Your task to perform on an android device: delete browsing data in the chrome app Image 0: 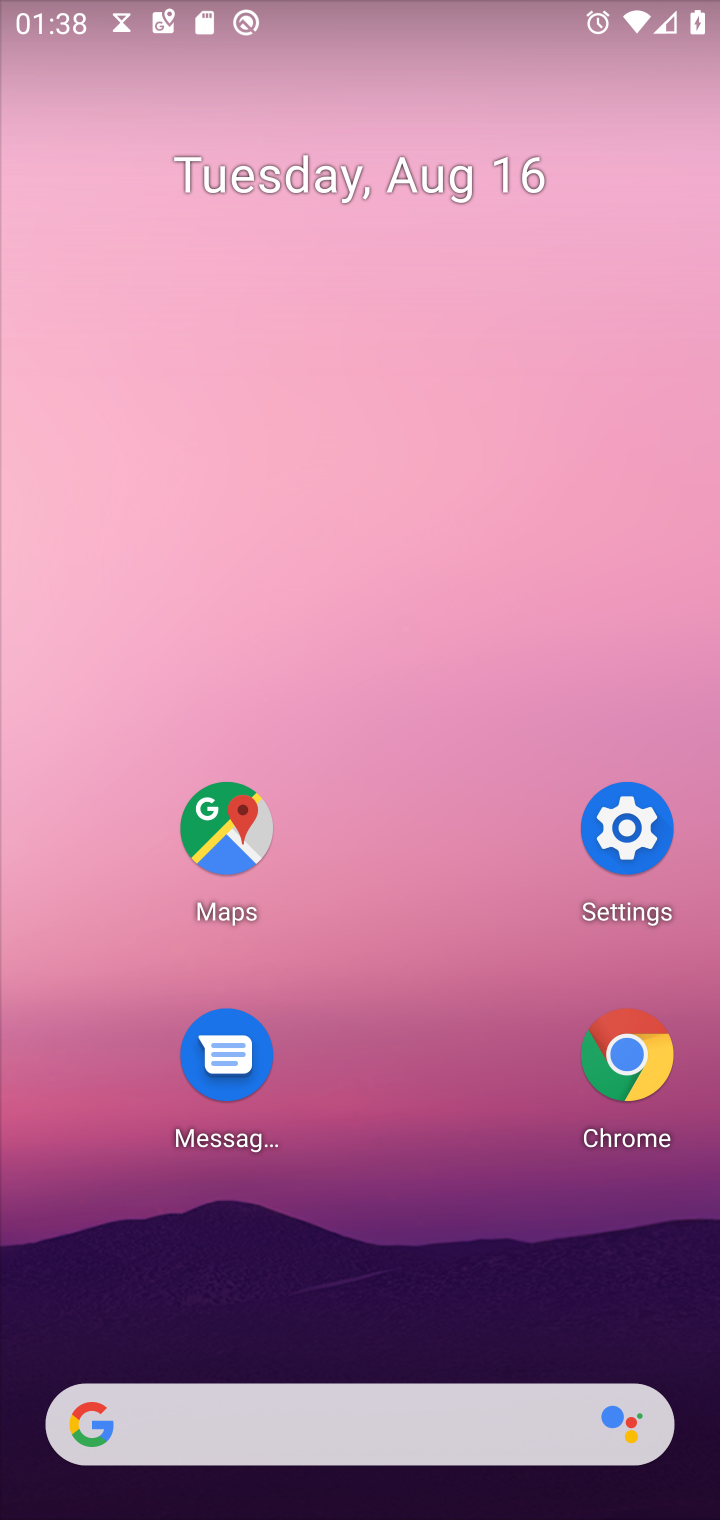
Step 0: press home button
Your task to perform on an android device: delete browsing data in the chrome app Image 1: 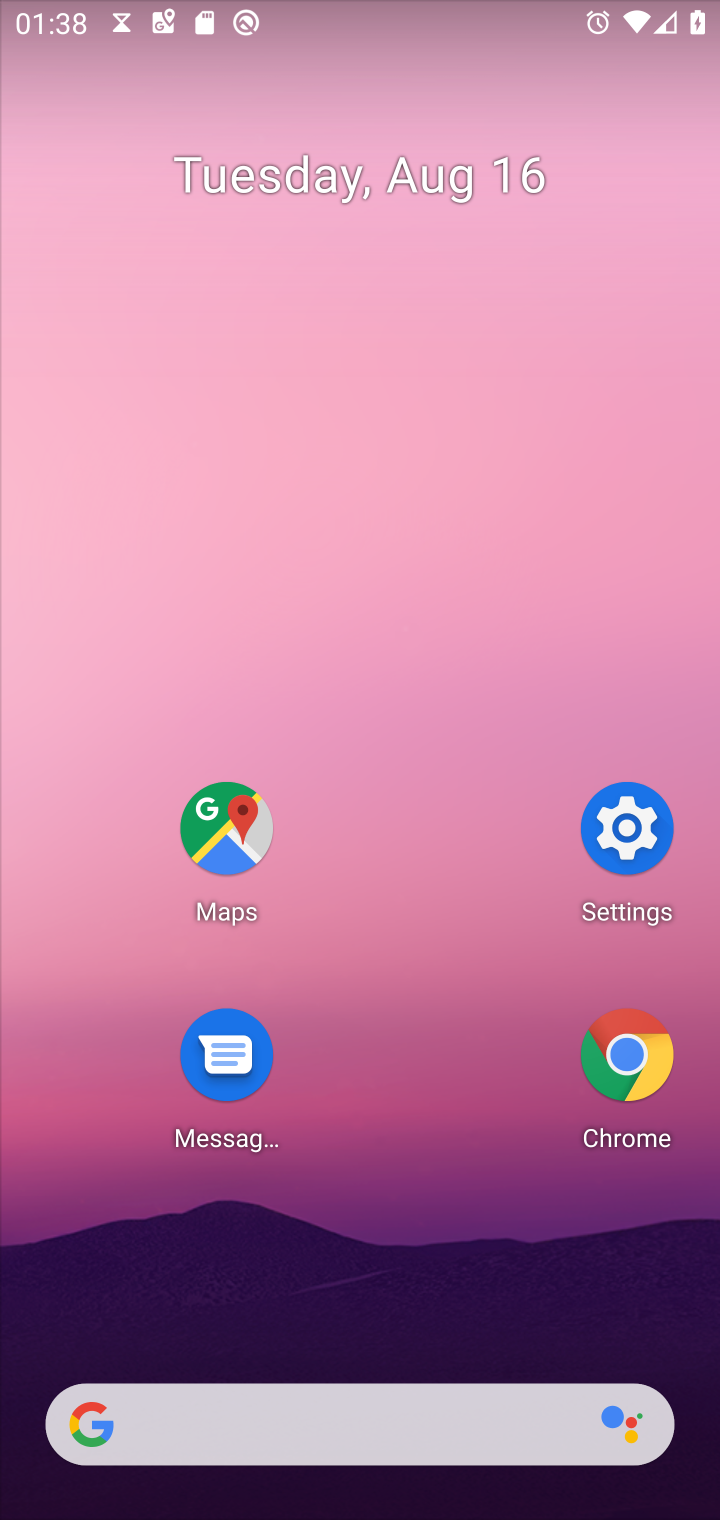
Step 1: click (622, 1041)
Your task to perform on an android device: delete browsing data in the chrome app Image 2: 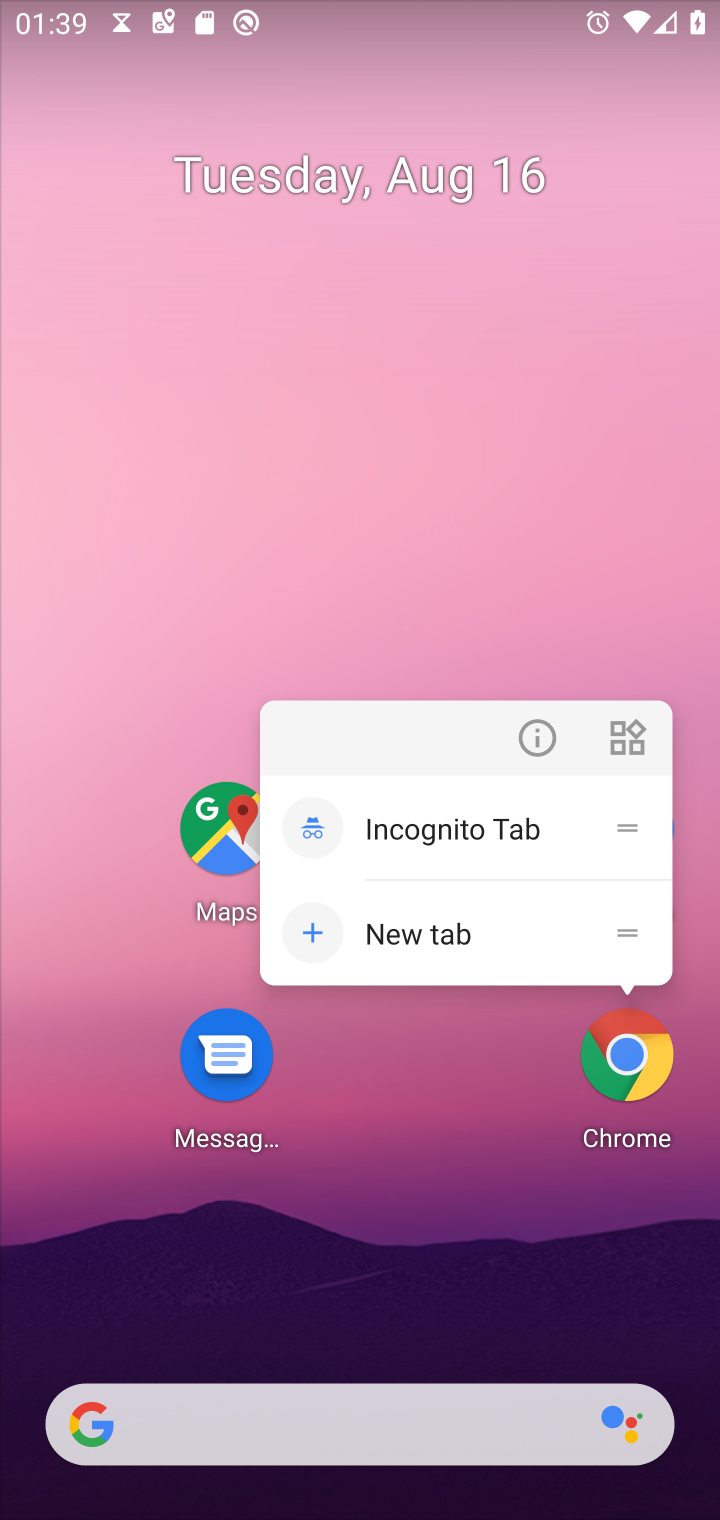
Step 2: click (622, 1050)
Your task to perform on an android device: delete browsing data in the chrome app Image 3: 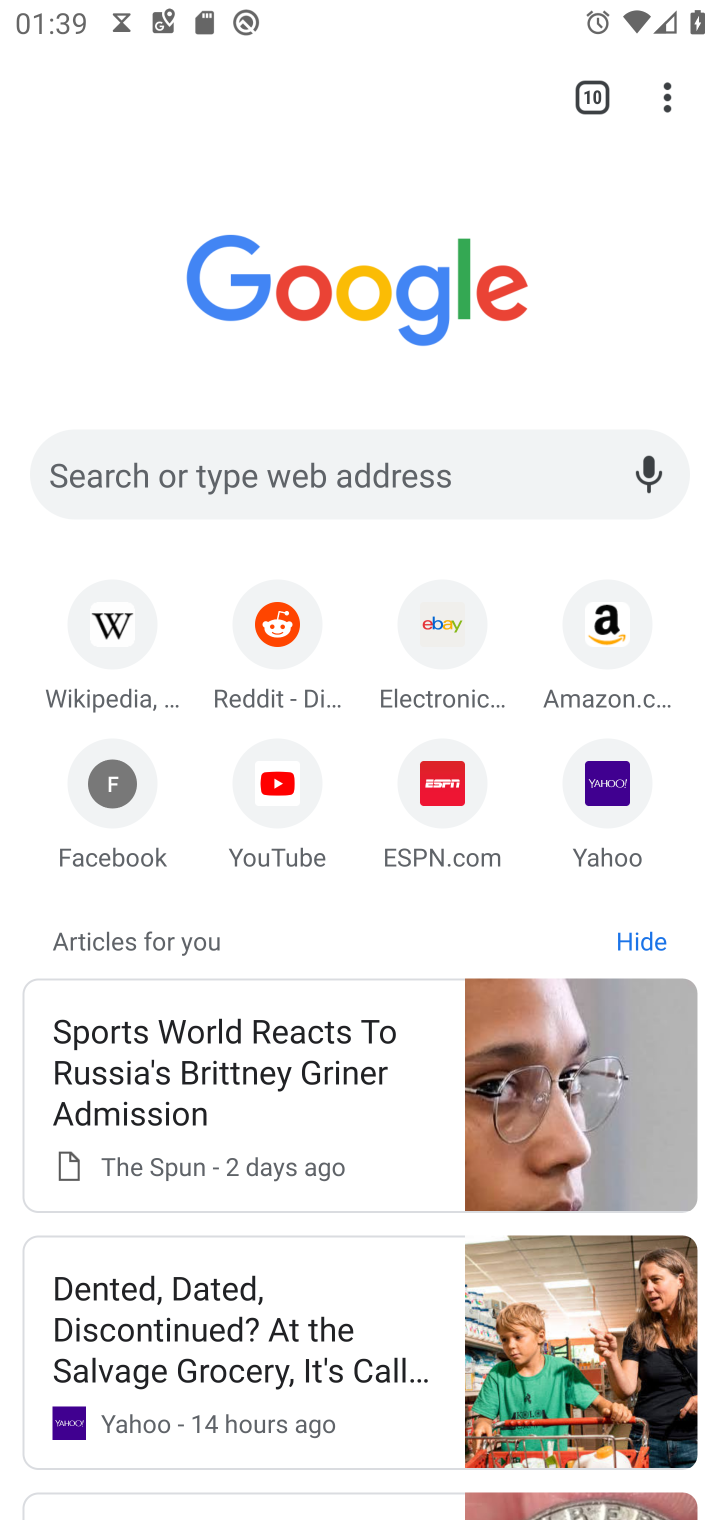
Step 3: drag from (664, 100) to (399, 805)
Your task to perform on an android device: delete browsing data in the chrome app Image 4: 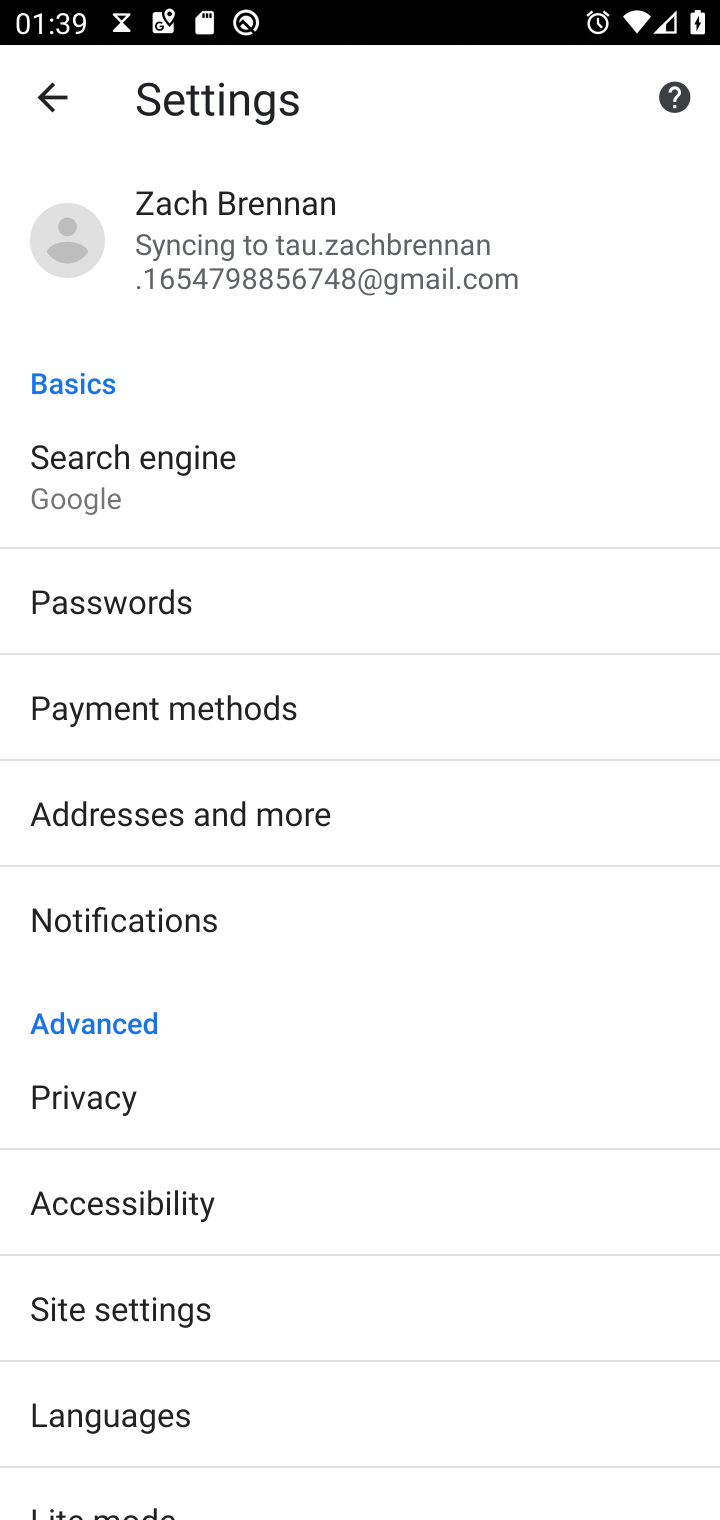
Step 4: drag from (327, 1228) to (482, 248)
Your task to perform on an android device: delete browsing data in the chrome app Image 5: 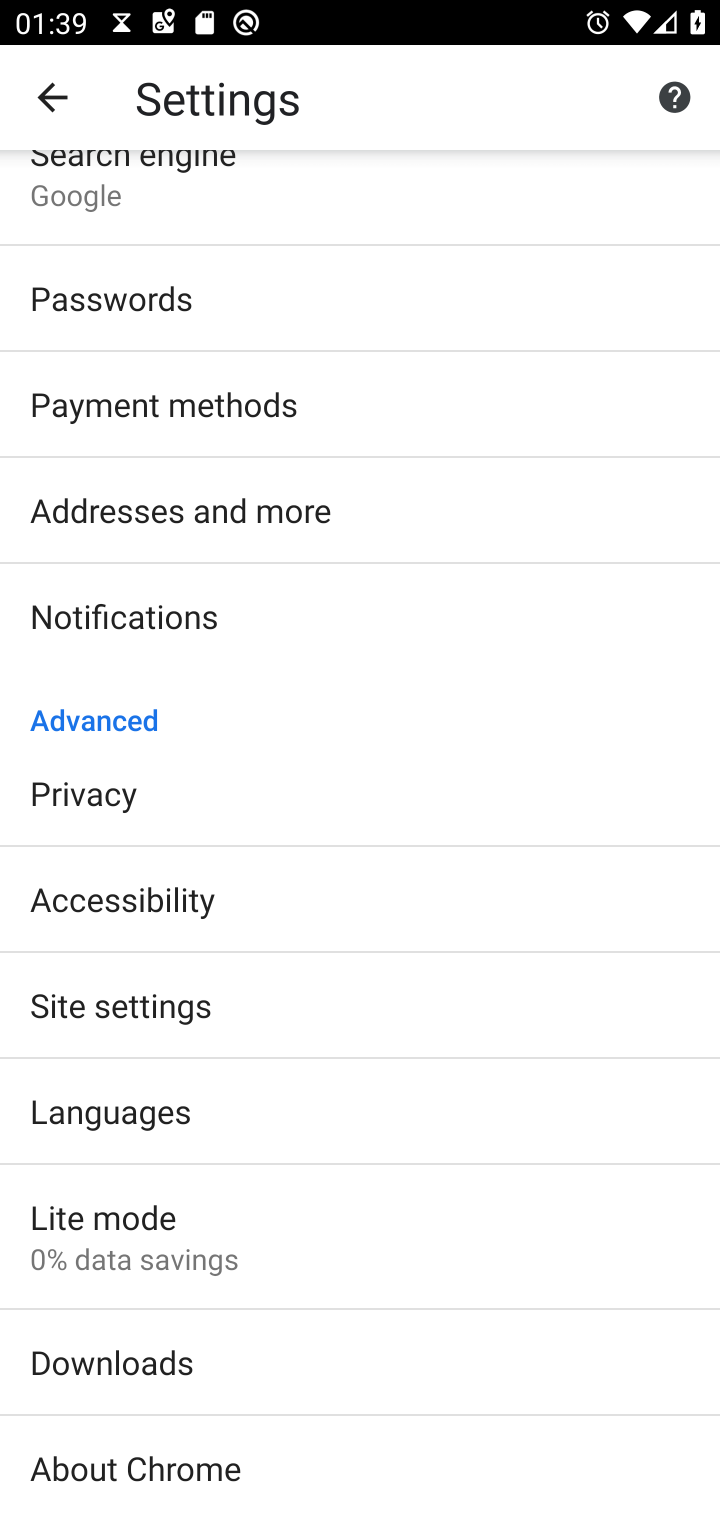
Step 5: click (99, 798)
Your task to perform on an android device: delete browsing data in the chrome app Image 6: 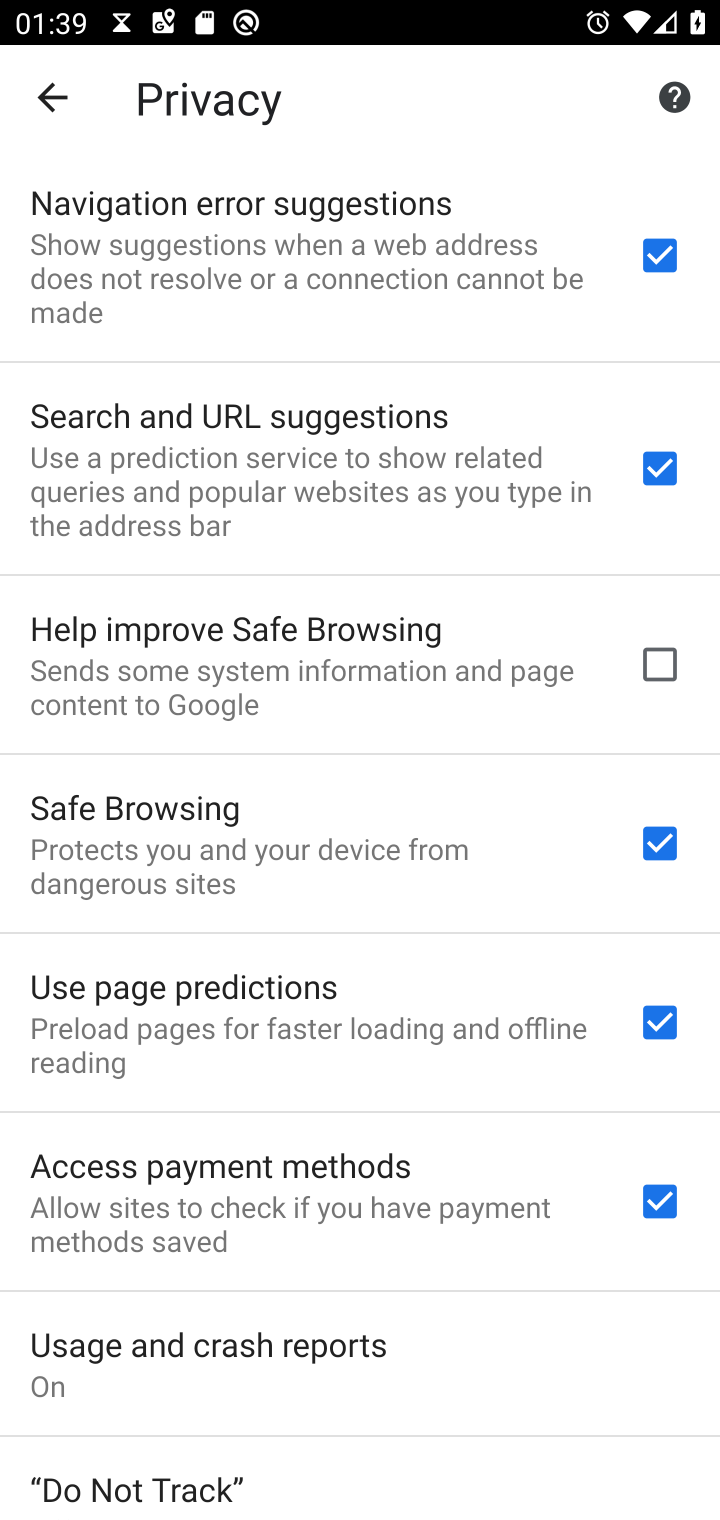
Step 6: drag from (493, 1402) to (619, 104)
Your task to perform on an android device: delete browsing data in the chrome app Image 7: 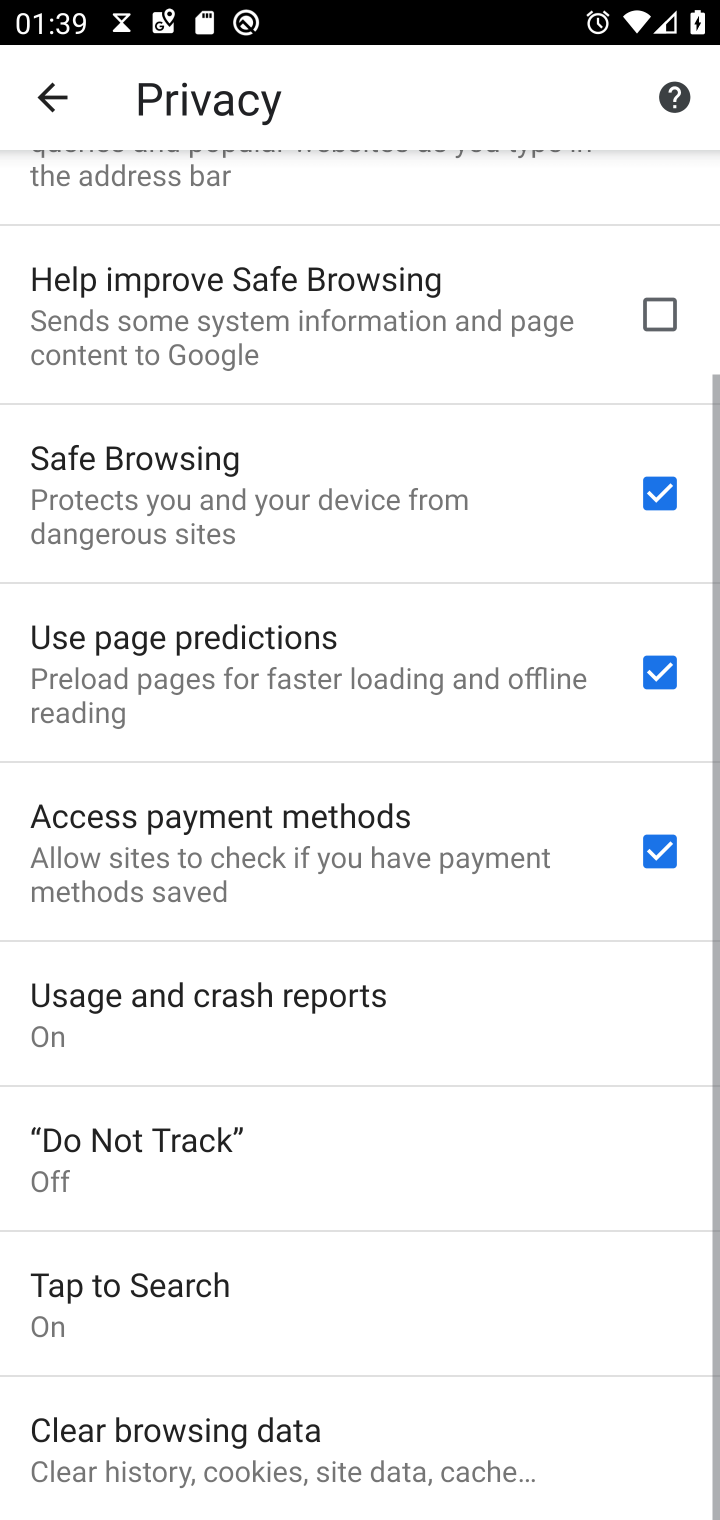
Step 7: click (257, 1465)
Your task to perform on an android device: delete browsing data in the chrome app Image 8: 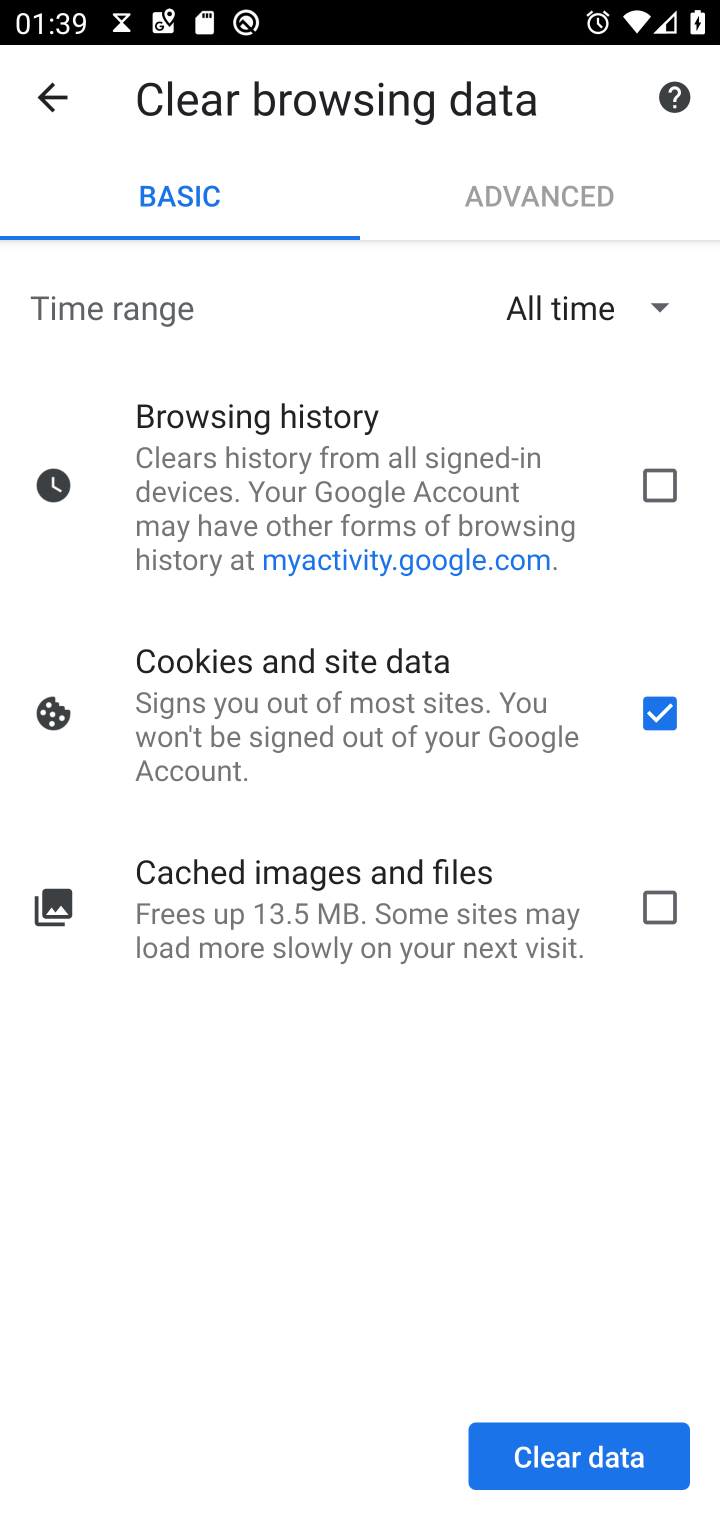
Step 8: click (651, 476)
Your task to perform on an android device: delete browsing data in the chrome app Image 9: 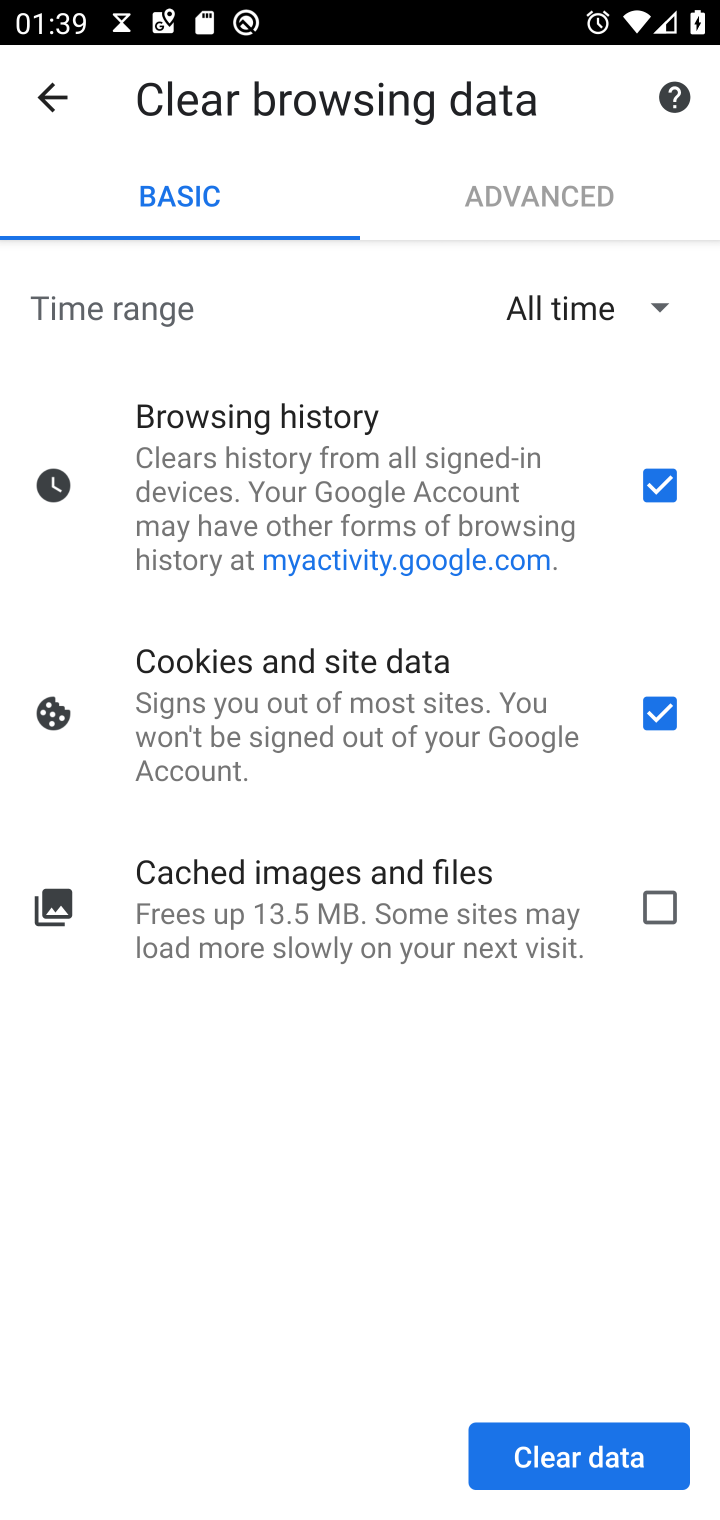
Step 9: click (668, 904)
Your task to perform on an android device: delete browsing data in the chrome app Image 10: 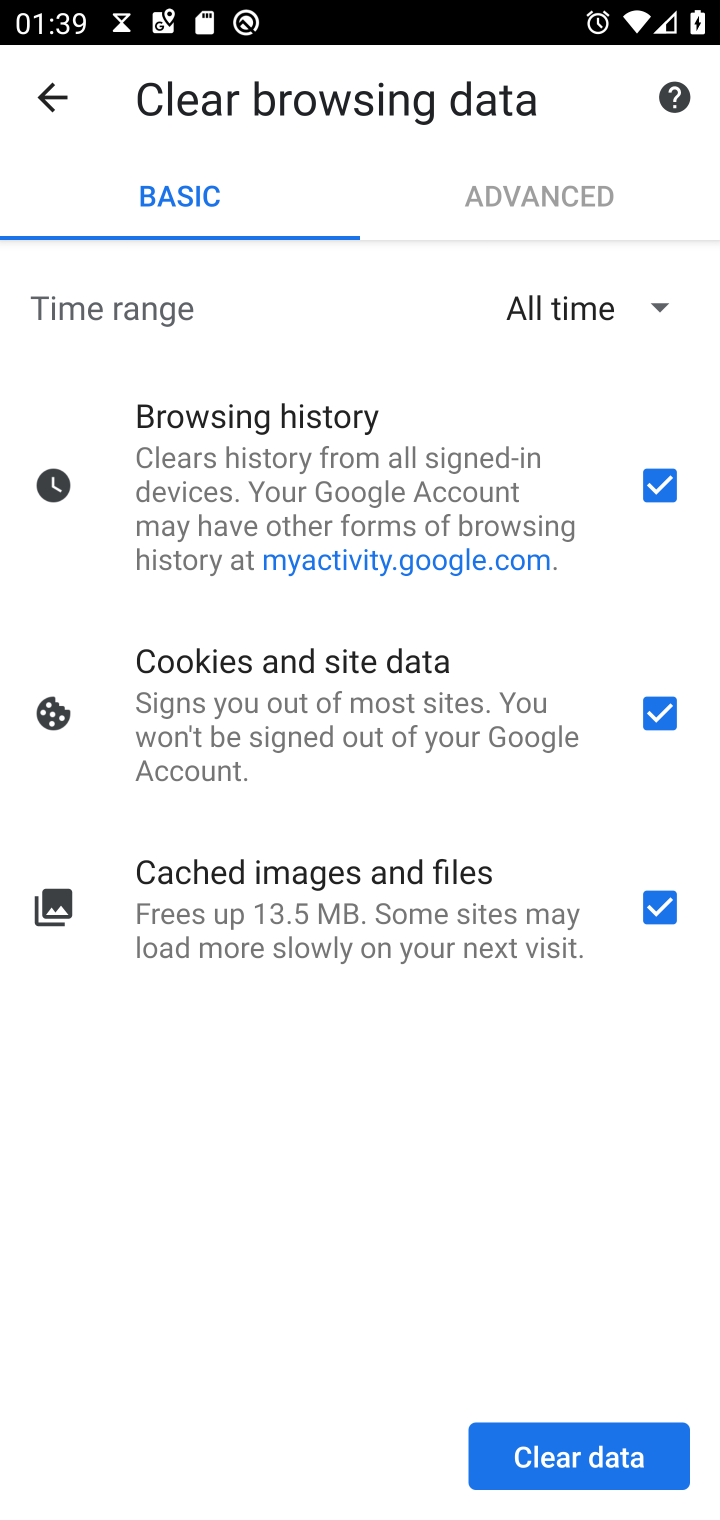
Step 10: click (629, 1448)
Your task to perform on an android device: delete browsing data in the chrome app Image 11: 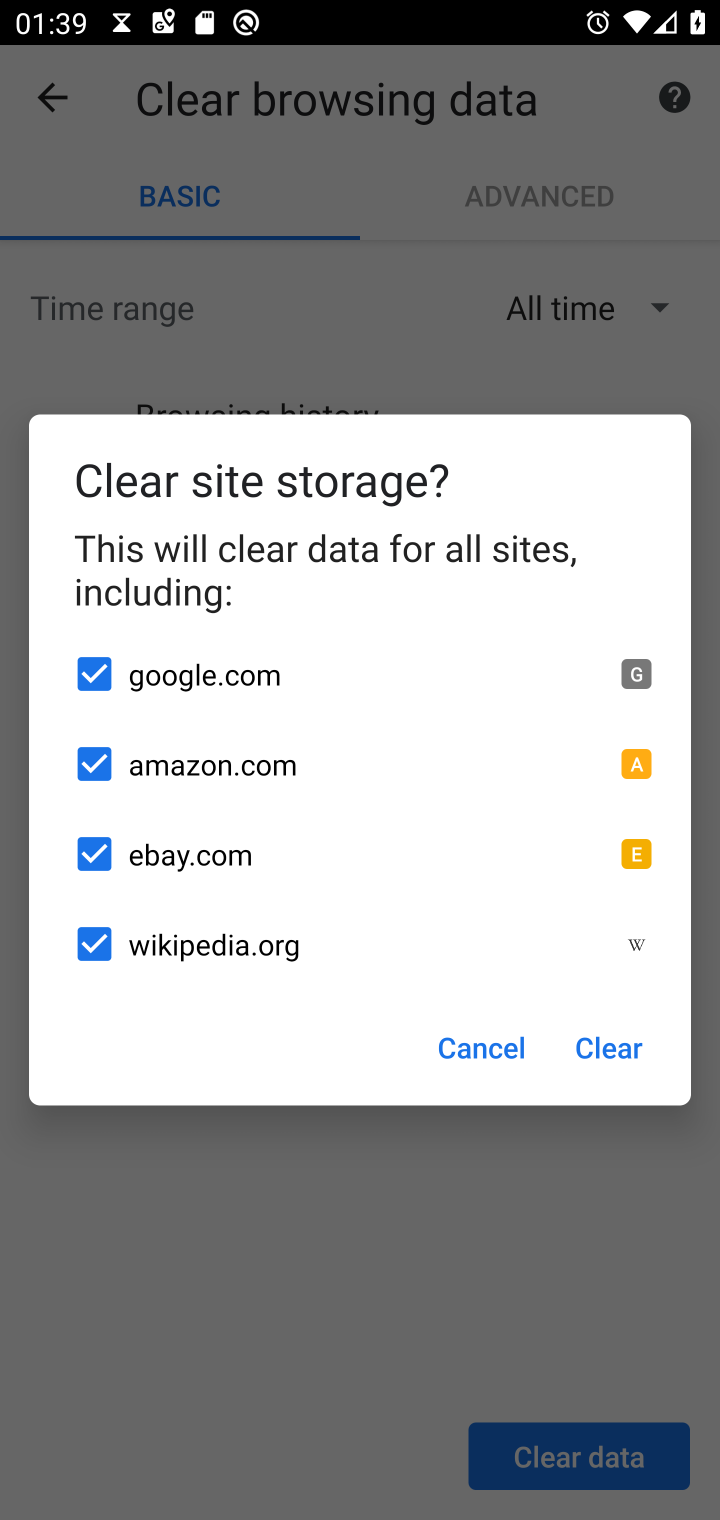
Step 11: click (597, 1033)
Your task to perform on an android device: delete browsing data in the chrome app Image 12: 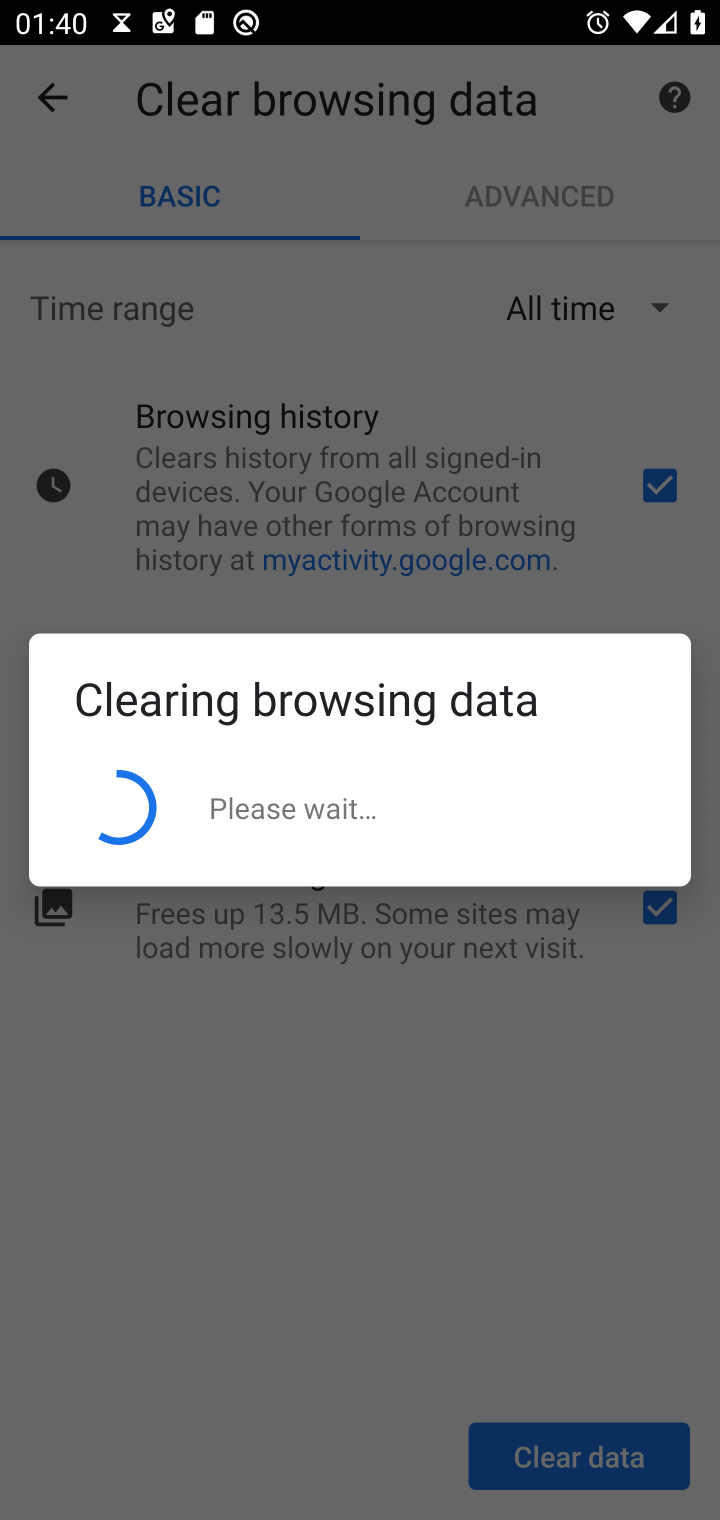
Step 12: task complete